Your task to perform on an android device: open sync settings in chrome Image 0: 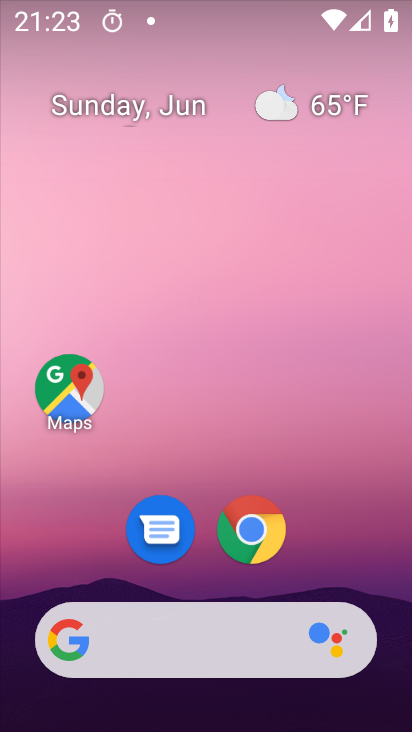
Step 0: click (257, 530)
Your task to perform on an android device: open sync settings in chrome Image 1: 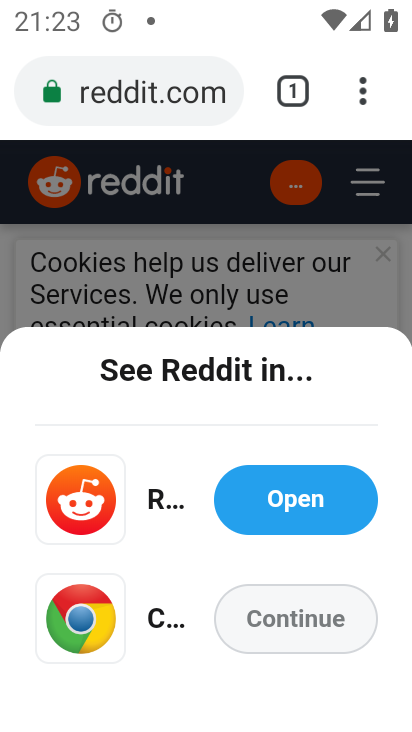
Step 1: click (380, 98)
Your task to perform on an android device: open sync settings in chrome Image 2: 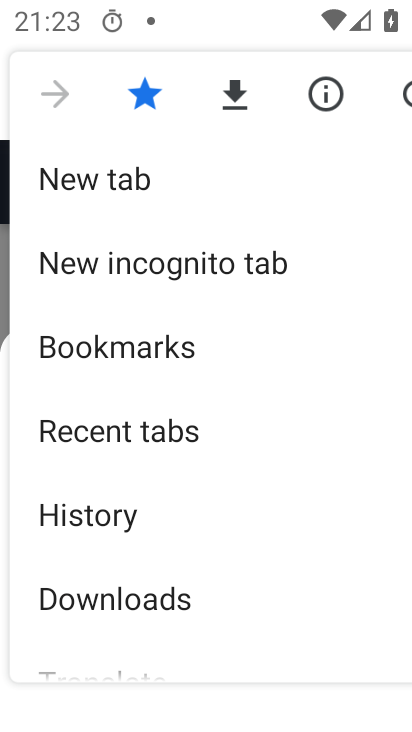
Step 2: drag from (162, 627) to (148, 235)
Your task to perform on an android device: open sync settings in chrome Image 3: 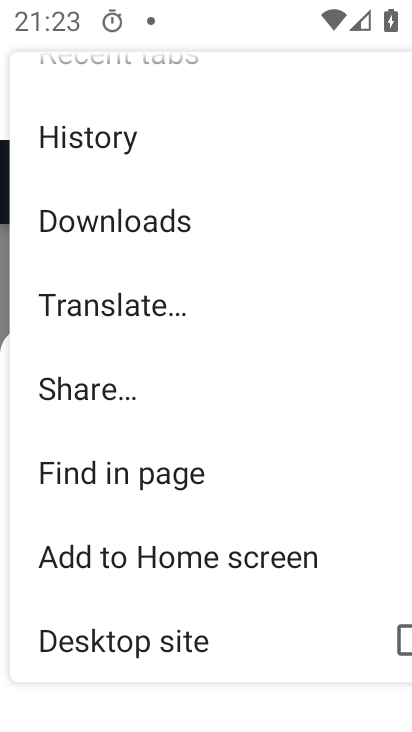
Step 3: drag from (114, 619) to (101, 225)
Your task to perform on an android device: open sync settings in chrome Image 4: 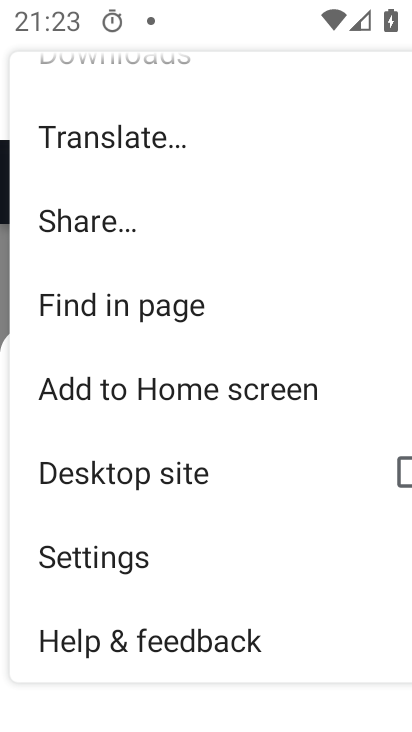
Step 4: click (109, 565)
Your task to perform on an android device: open sync settings in chrome Image 5: 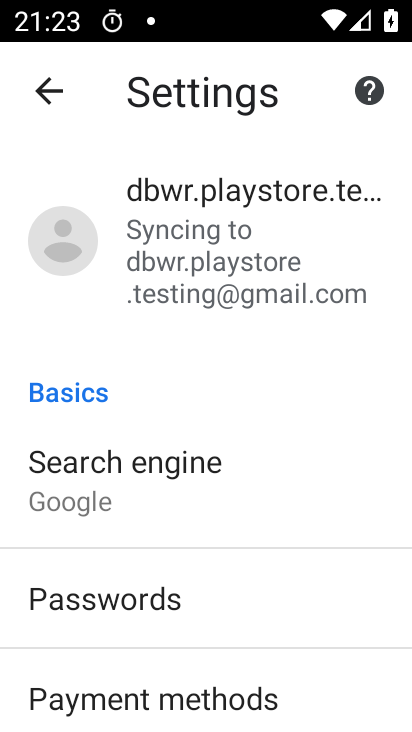
Step 5: click (220, 248)
Your task to perform on an android device: open sync settings in chrome Image 6: 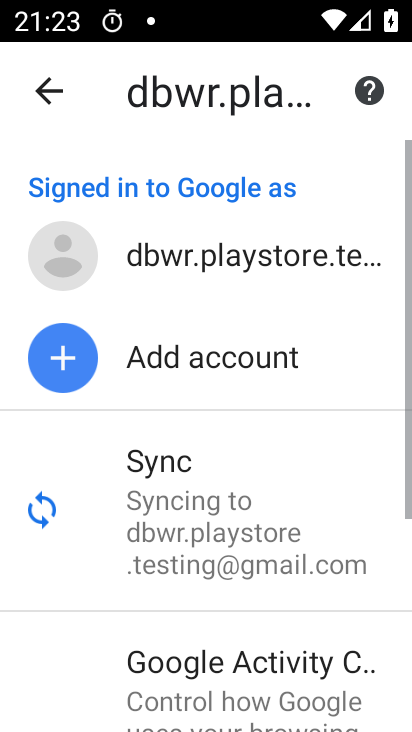
Step 6: click (211, 566)
Your task to perform on an android device: open sync settings in chrome Image 7: 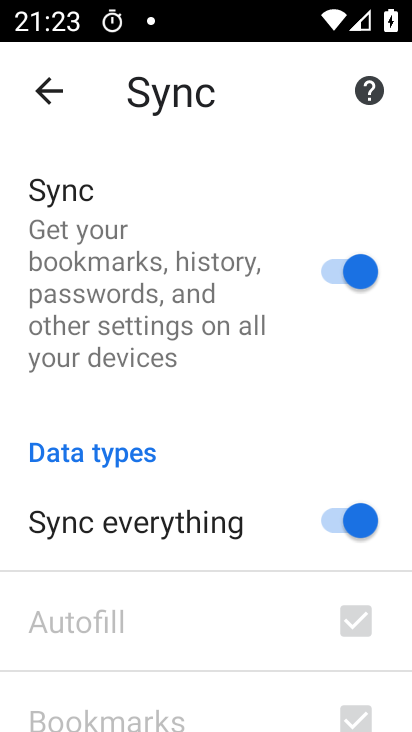
Step 7: task complete